Your task to perform on an android device: Open ESPN.com Image 0: 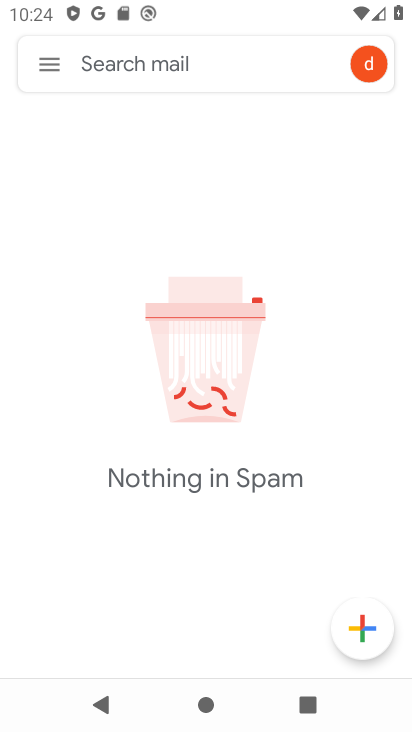
Step 0: press back button
Your task to perform on an android device: Open ESPN.com Image 1: 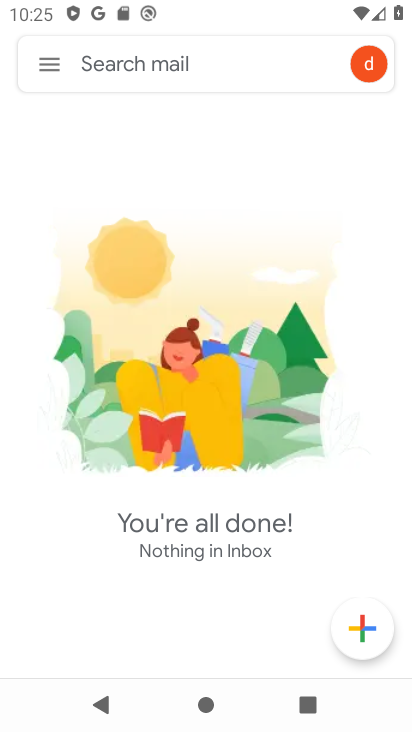
Step 1: press home button
Your task to perform on an android device: Open ESPN.com Image 2: 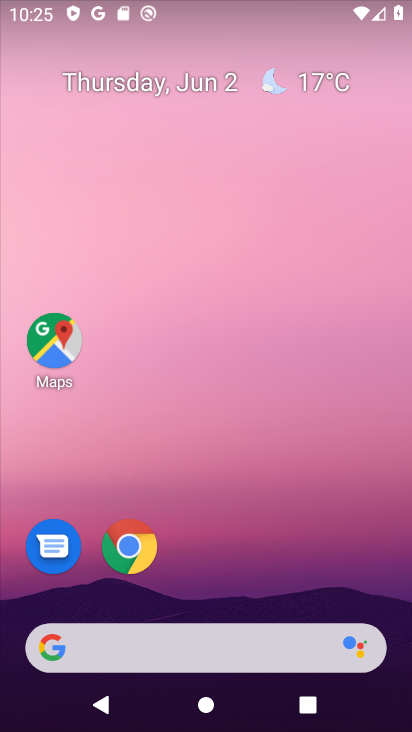
Step 2: drag from (258, 539) to (242, 28)
Your task to perform on an android device: Open ESPN.com Image 3: 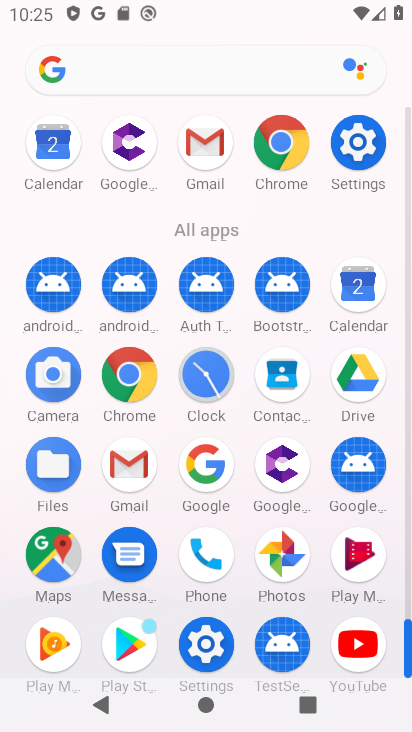
Step 3: click (282, 136)
Your task to perform on an android device: Open ESPN.com Image 4: 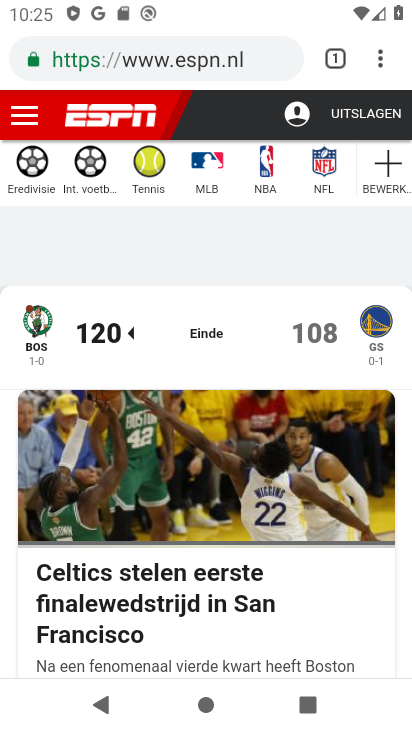
Step 4: task complete